Your task to perform on an android device: delete browsing data in the chrome app Image 0: 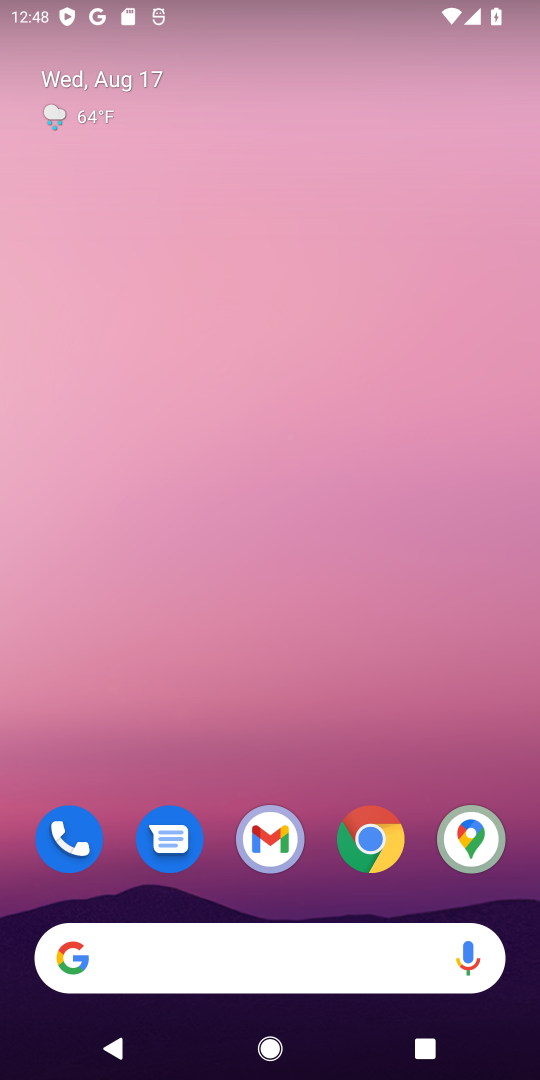
Step 0: click (372, 841)
Your task to perform on an android device: delete browsing data in the chrome app Image 1: 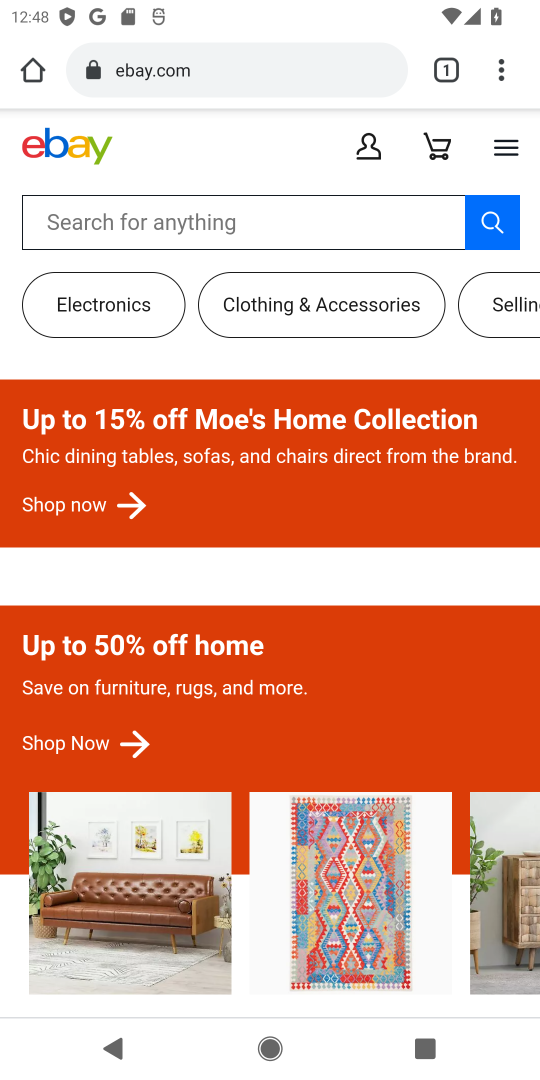
Step 1: drag from (502, 69) to (368, 794)
Your task to perform on an android device: delete browsing data in the chrome app Image 2: 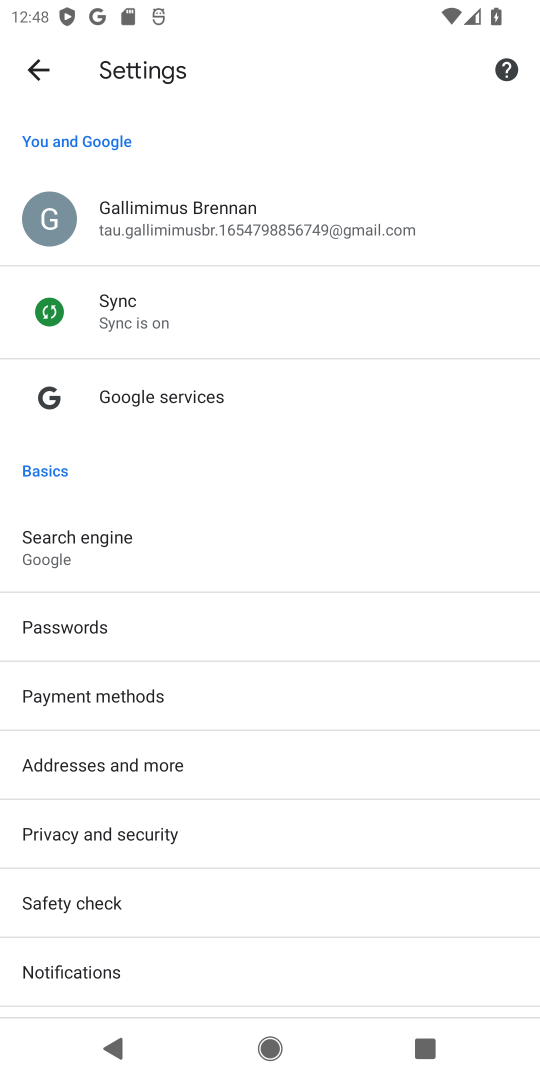
Step 2: drag from (181, 705) to (250, 587)
Your task to perform on an android device: delete browsing data in the chrome app Image 3: 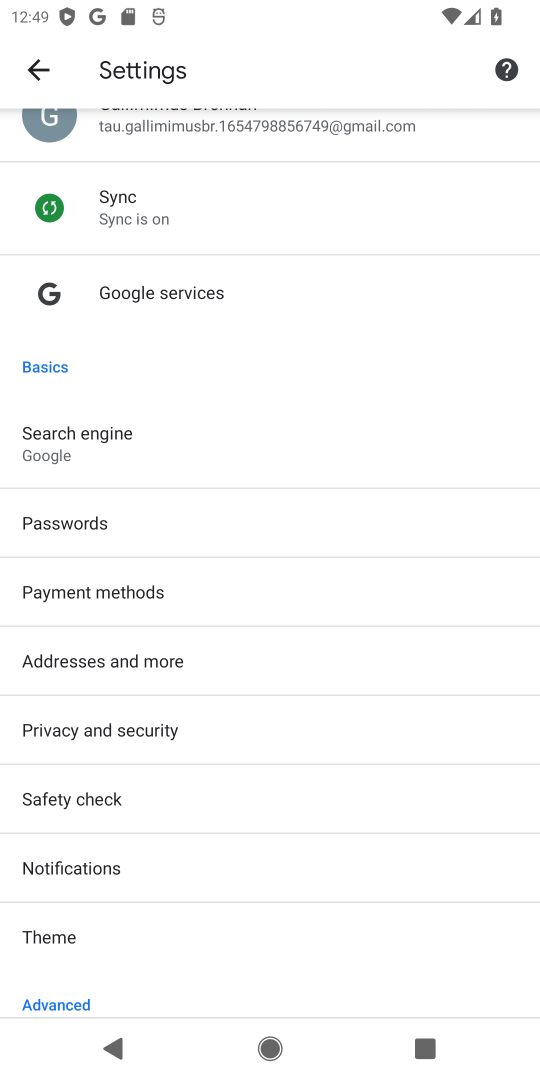
Step 3: drag from (202, 797) to (318, 623)
Your task to perform on an android device: delete browsing data in the chrome app Image 4: 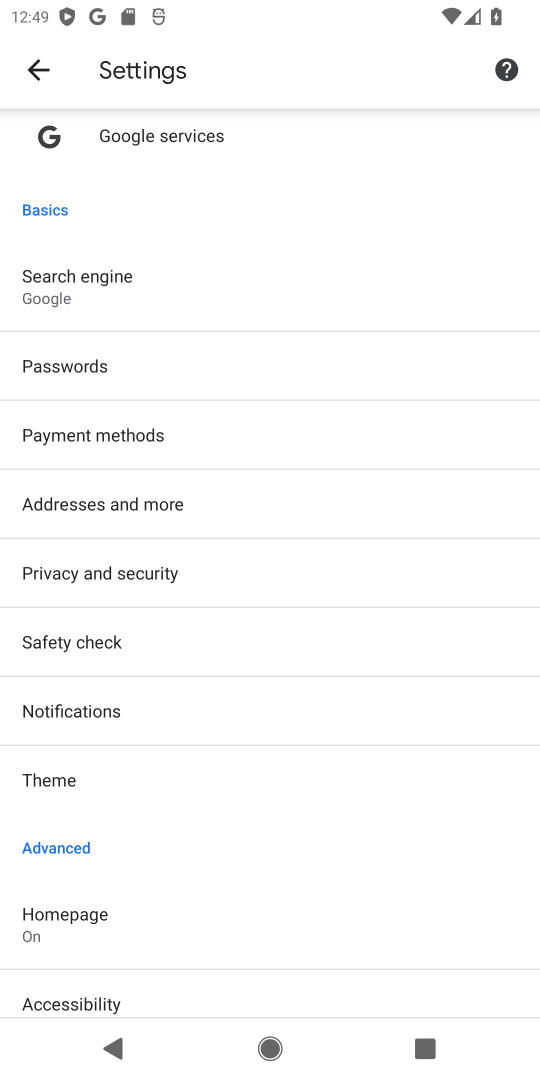
Step 4: click (167, 572)
Your task to perform on an android device: delete browsing data in the chrome app Image 5: 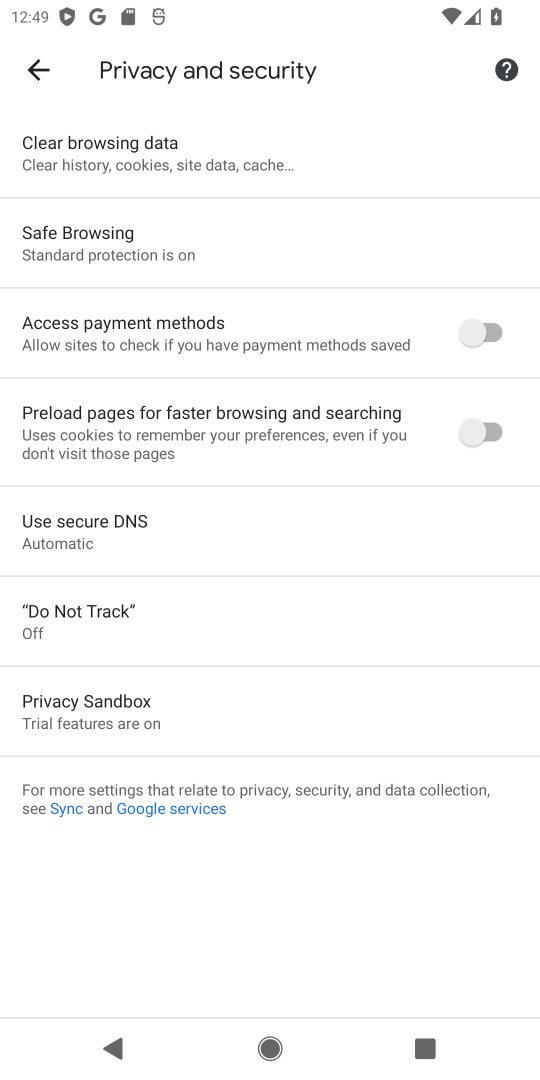
Step 5: click (207, 168)
Your task to perform on an android device: delete browsing data in the chrome app Image 6: 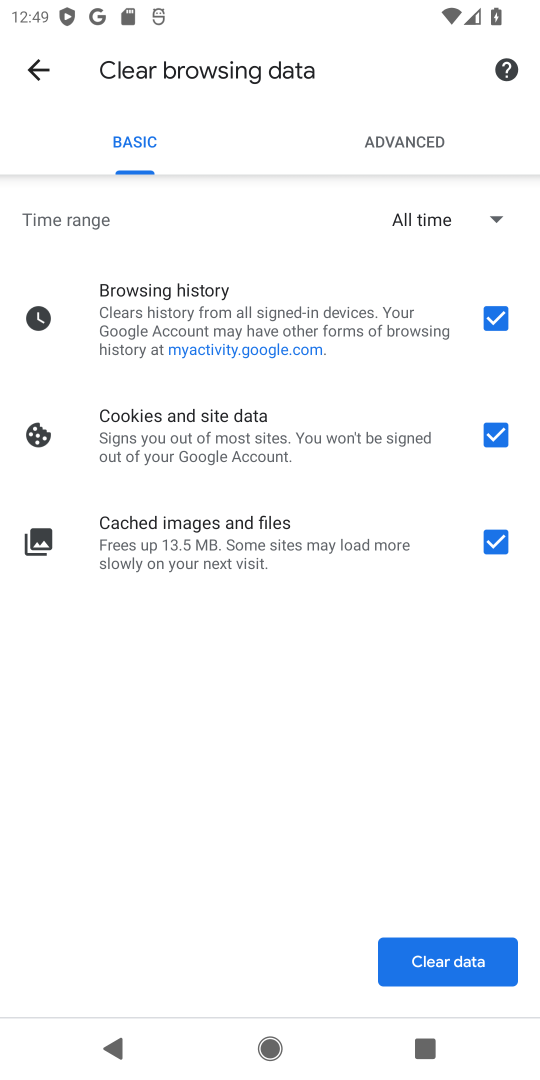
Step 6: click (460, 970)
Your task to perform on an android device: delete browsing data in the chrome app Image 7: 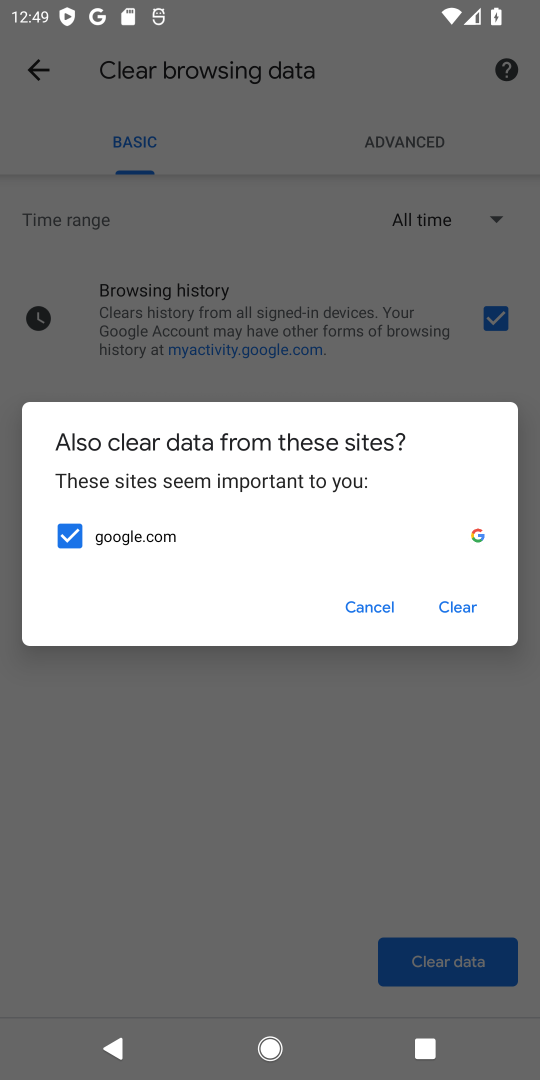
Step 7: click (453, 604)
Your task to perform on an android device: delete browsing data in the chrome app Image 8: 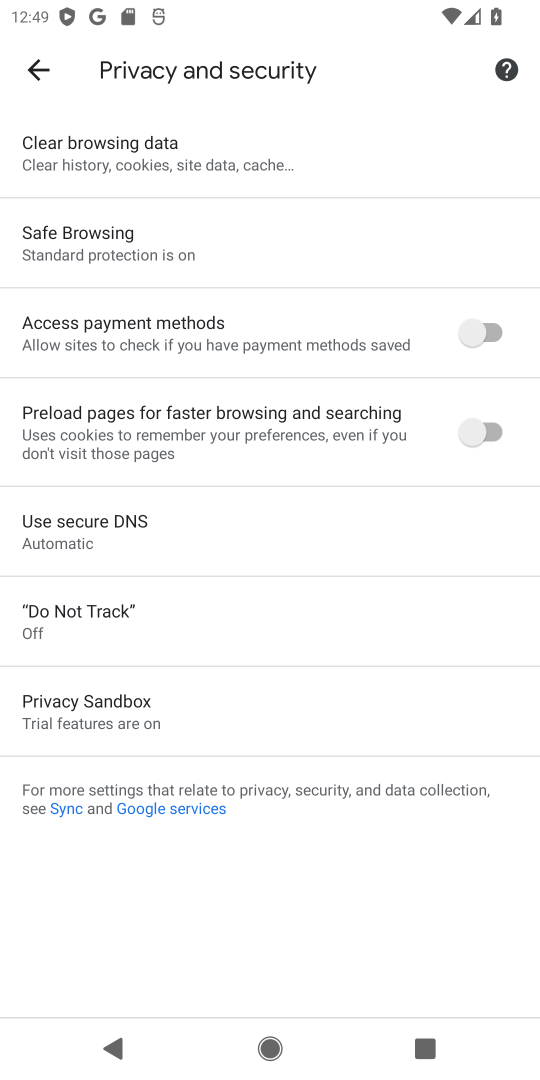
Step 8: task complete